Your task to perform on an android device: Go to settings Image 0: 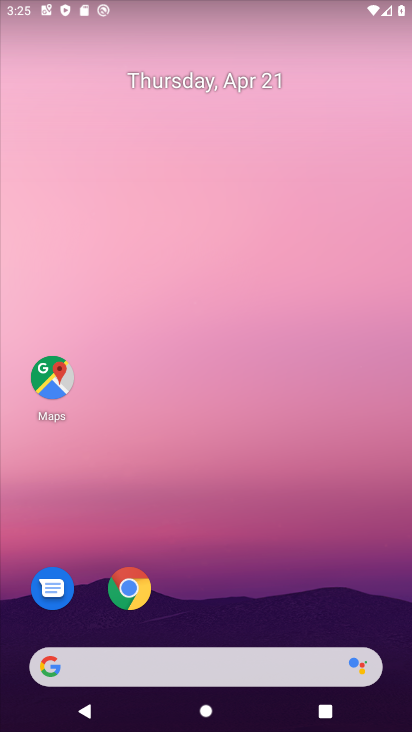
Step 0: drag from (192, 645) to (207, 26)
Your task to perform on an android device: Go to settings Image 1: 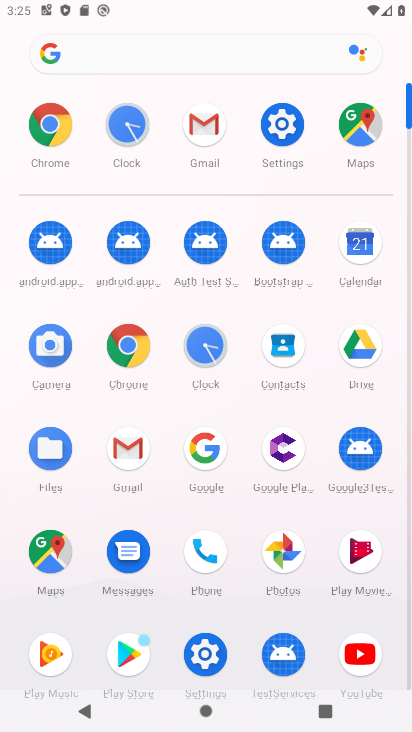
Step 1: click (265, 133)
Your task to perform on an android device: Go to settings Image 2: 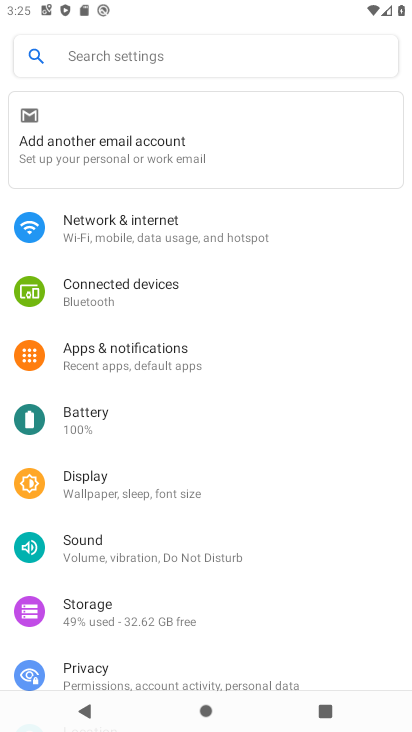
Step 2: task complete